Your task to perform on an android device: see tabs open on other devices in the chrome app Image 0: 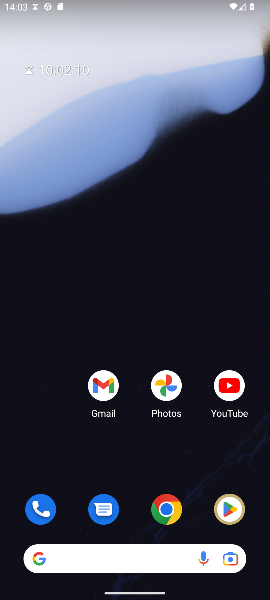
Step 0: press home button
Your task to perform on an android device: see tabs open on other devices in the chrome app Image 1: 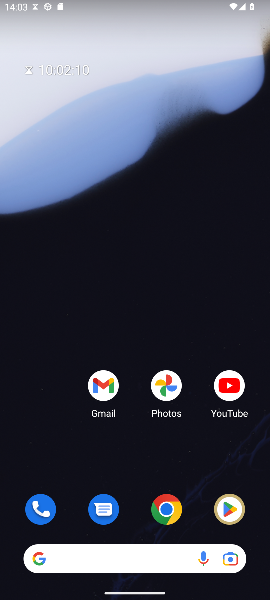
Step 1: click (168, 507)
Your task to perform on an android device: see tabs open on other devices in the chrome app Image 2: 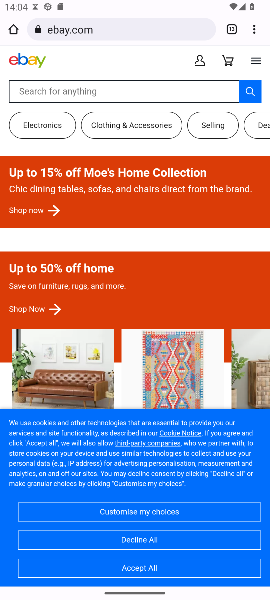
Step 2: task complete